Your task to perform on an android device: Go to Amazon Image 0: 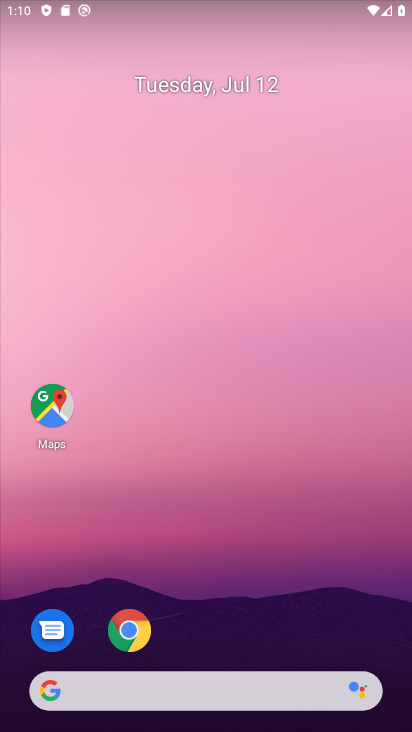
Step 0: drag from (219, 638) to (201, 62)
Your task to perform on an android device: Go to Amazon Image 1: 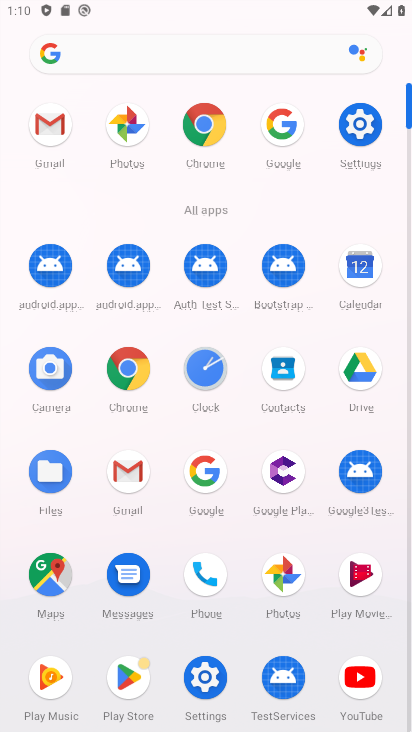
Step 1: click (197, 138)
Your task to perform on an android device: Go to Amazon Image 2: 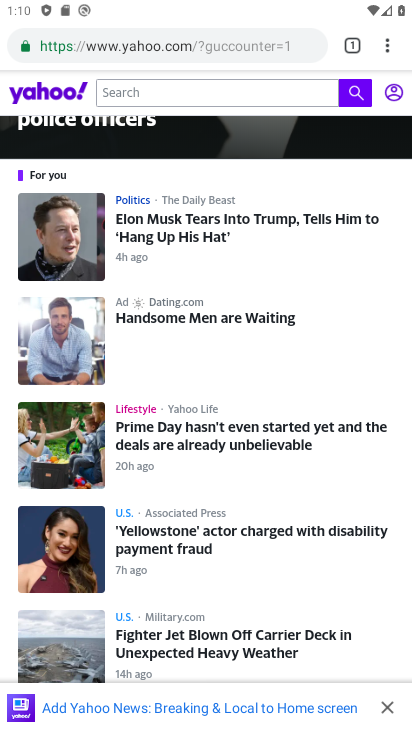
Step 2: click (346, 47)
Your task to perform on an android device: Go to Amazon Image 3: 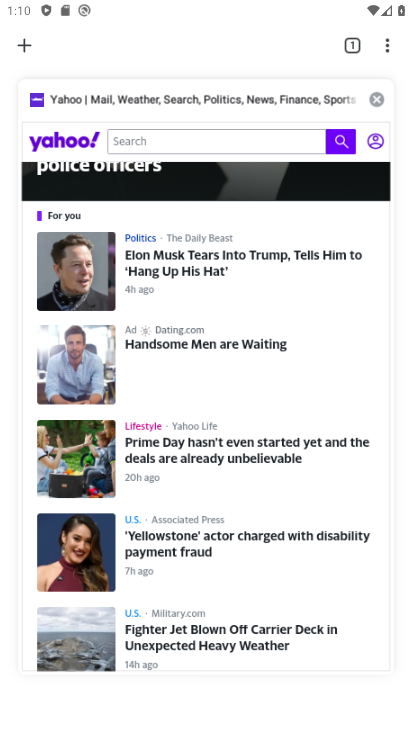
Step 3: click (26, 45)
Your task to perform on an android device: Go to Amazon Image 4: 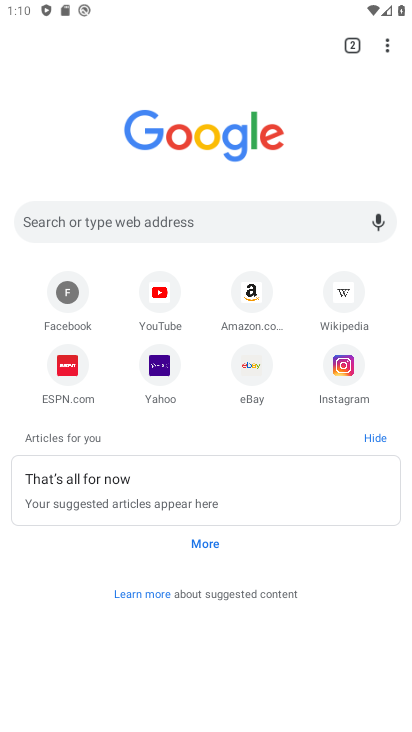
Step 4: click (238, 288)
Your task to perform on an android device: Go to Amazon Image 5: 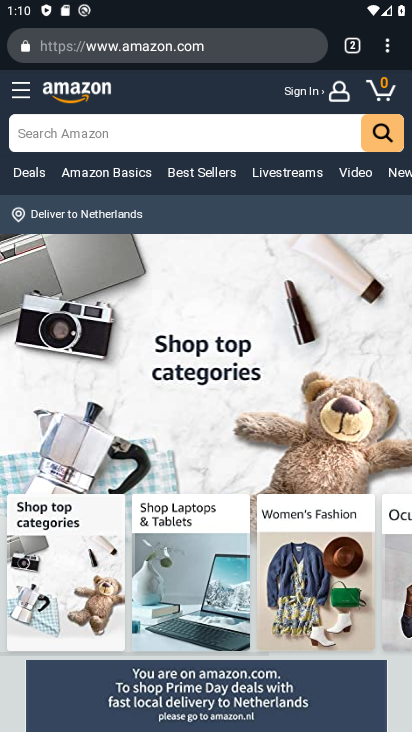
Step 5: task complete